Your task to perform on an android device: Go to Google maps Image 0: 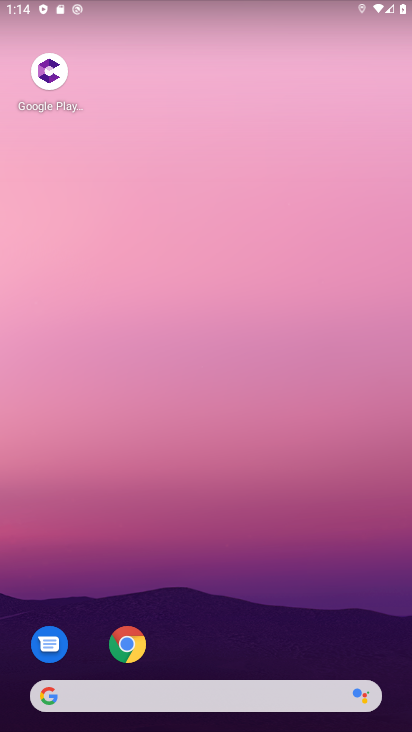
Step 0: drag from (236, 641) to (269, 33)
Your task to perform on an android device: Go to Google maps Image 1: 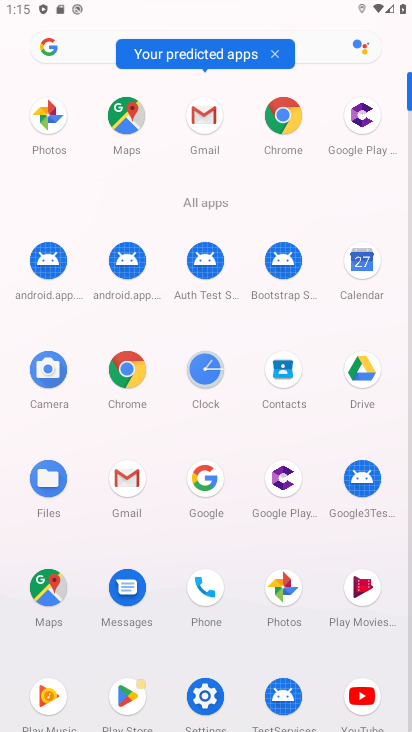
Step 1: click (117, 124)
Your task to perform on an android device: Go to Google maps Image 2: 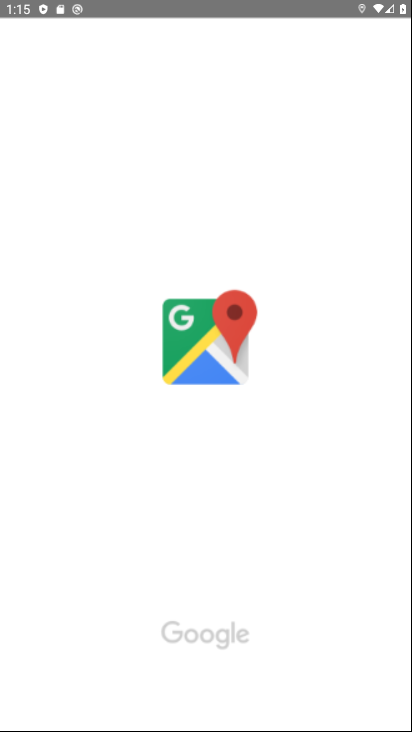
Step 2: task complete